Your task to perform on an android device: Open the calendar app, open the side menu, and click the "Day" option Image 0: 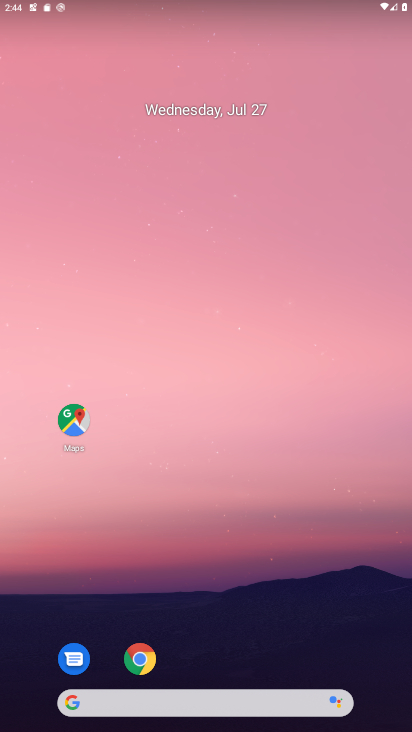
Step 0: drag from (278, 647) to (294, 211)
Your task to perform on an android device: Open the calendar app, open the side menu, and click the "Day" option Image 1: 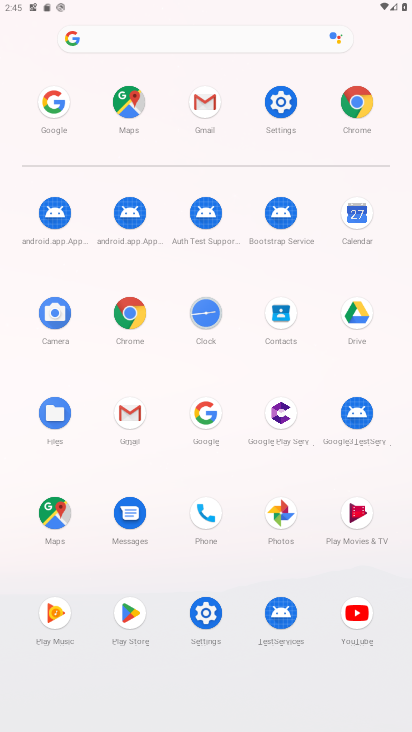
Step 1: click (360, 220)
Your task to perform on an android device: Open the calendar app, open the side menu, and click the "Day" option Image 2: 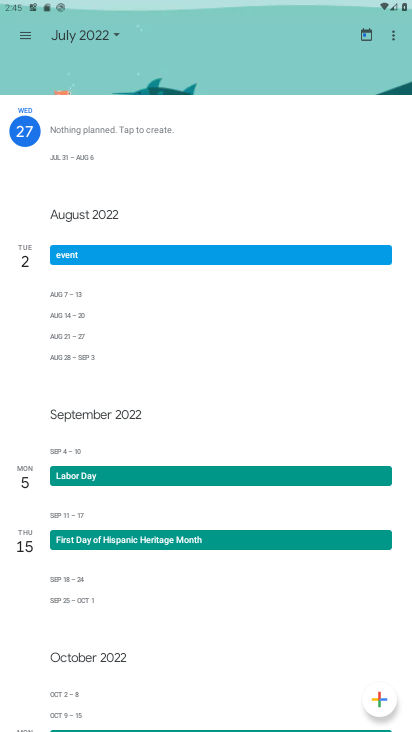
Step 2: click (22, 39)
Your task to perform on an android device: Open the calendar app, open the side menu, and click the "Day" option Image 3: 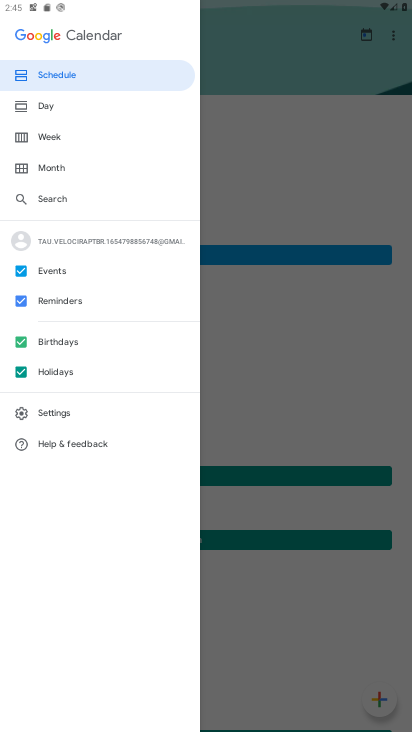
Step 3: click (42, 106)
Your task to perform on an android device: Open the calendar app, open the side menu, and click the "Day" option Image 4: 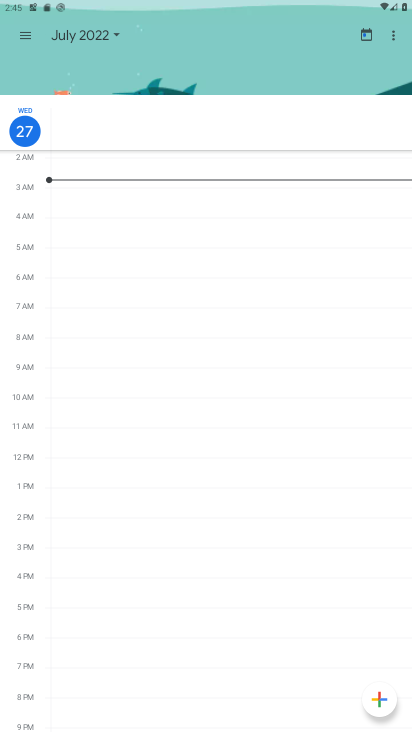
Step 4: task complete